Your task to perform on an android device: check the backup settings in the google photos Image 0: 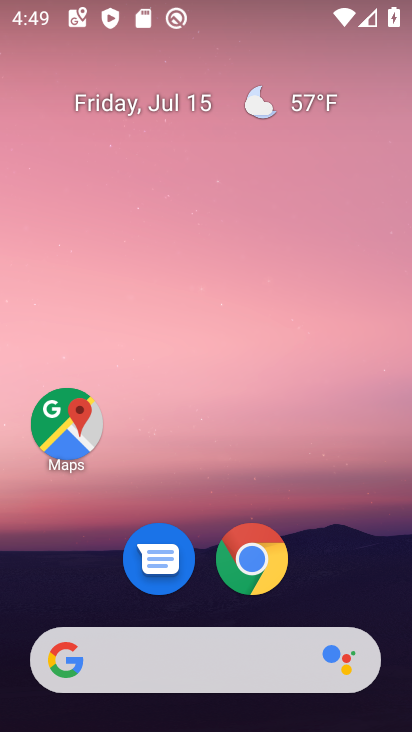
Step 0: drag from (88, 543) to (180, 10)
Your task to perform on an android device: check the backup settings in the google photos Image 1: 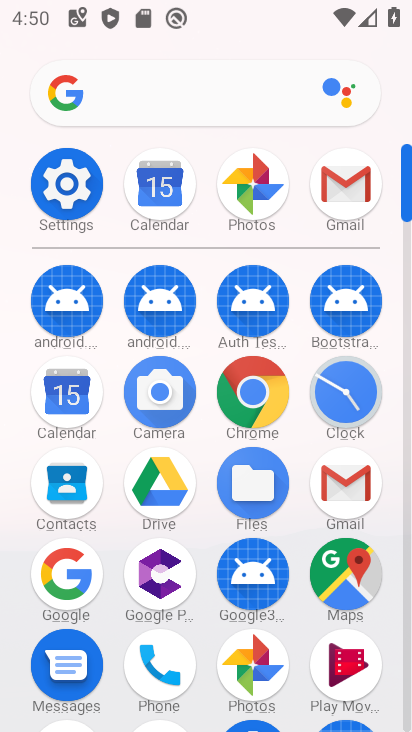
Step 1: click (252, 676)
Your task to perform on an android device: check the backup settings in the google photos Image 2: 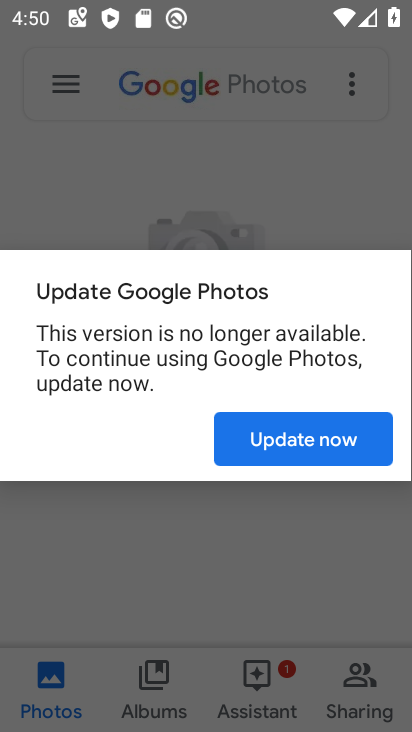
Step 2: click (270, 426)
Your task to perform on an android device: check the backup settings in the google photos Image 3: 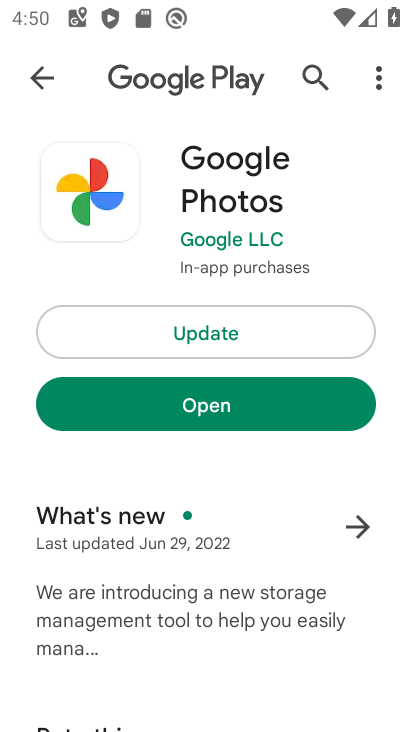
Step 3: click (227, 409)
Your task to perform on an android device: check the backup settings in the google photos Image 4: 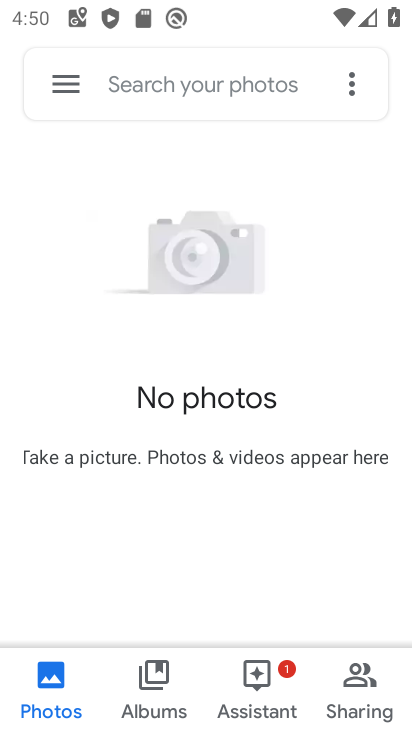
Step 4: click (59, 82)
Your task to perform on an android device: check the backup settings in the google photos Image 5: 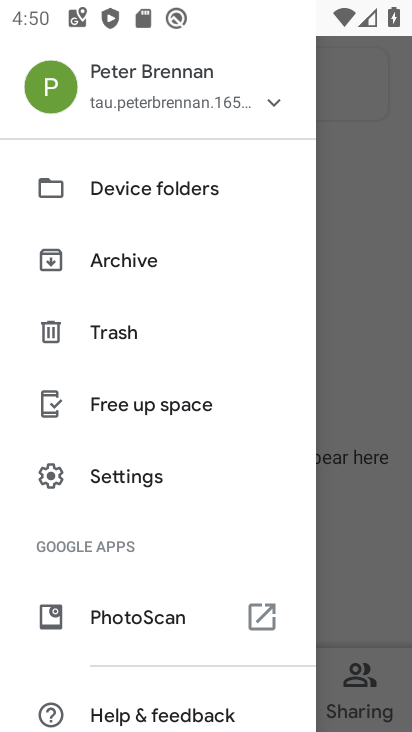
Step 5: click (130, 477)
Your task to perform on an android device: check the backup settings in the google photos Image 6: 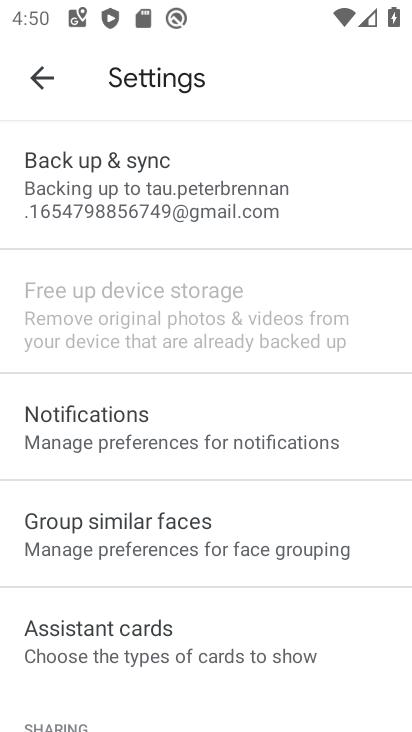
Step 6: click (119, 167)
Your task to perform on an android device: check the backup settings in the google photos Image 7: 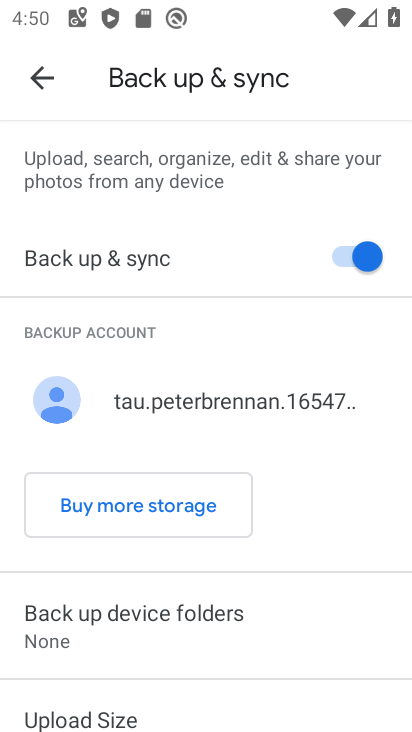
Step 7: task complete